Your task to perform on an android device: clear all cookies in the chrome app Image 0: 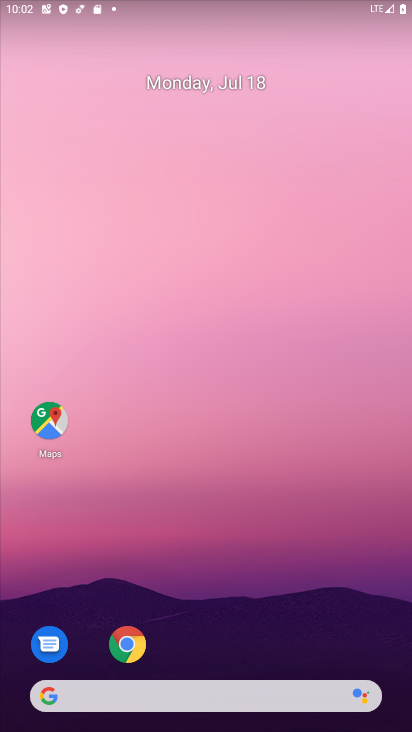
Step 0: drag from (331, 597) to (354, 95)
Your task to perform on an android device: clear all cookies in the chrome app Image 1: 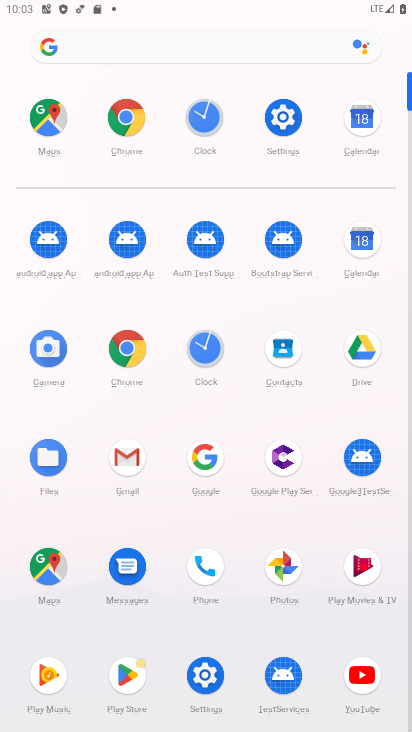
Step 1: click (128, 116)
Your task to perform on an android device: clear all cookies in the chrome app Image 2: 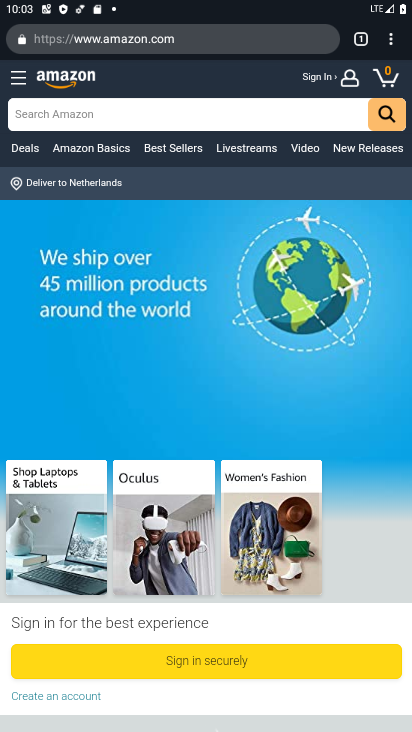
Step 2: click (392, 46)
Your task to perform on an android device: clear all cookies in the chrome app Image 3: 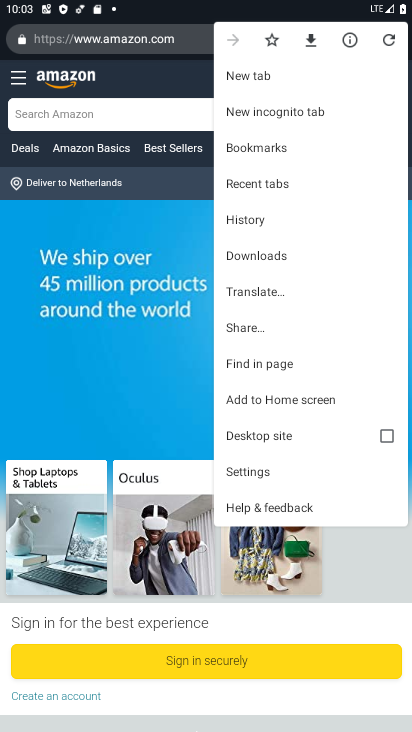
Step 3: click (272, 475)
Your task to perform on an android device: clear all cookies in the chrome app Image 4: 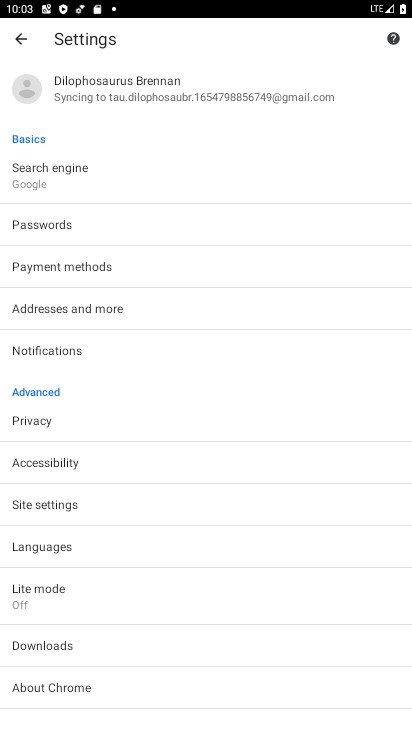
Step 4: drag from (231, 626) to (249, 531)
Your task to perform on an android device: clear all cookies in the chrome app Image 5: 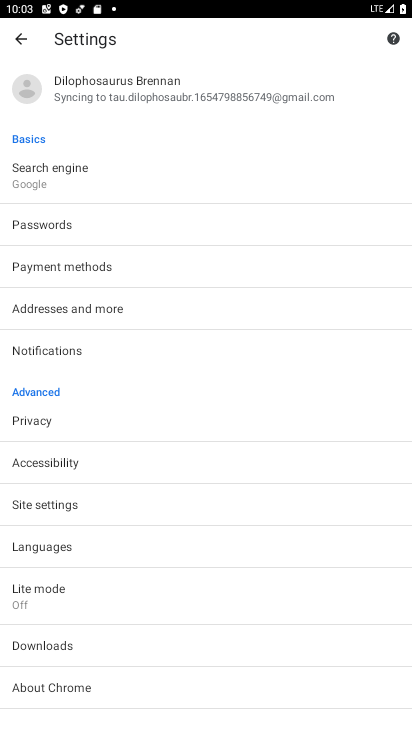
Step 5: click (179, 408)
Your task to perform on an android device: clear all cookies in the chrome app Image 6: 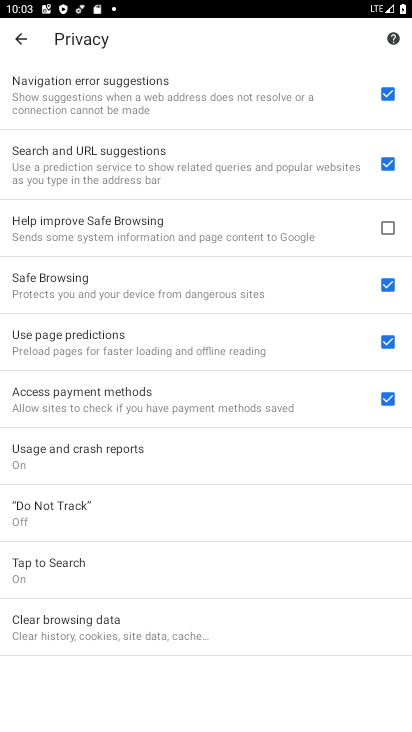
Step 6: click (243, 621)
Your task to perform on an android device: clear all cookies in the chrome app Image 7: 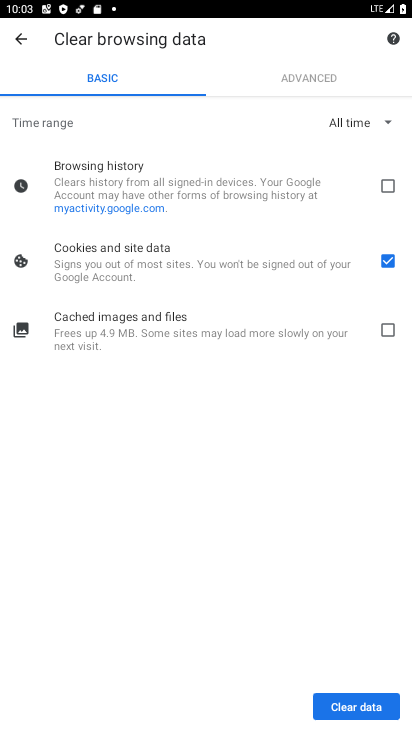
Step 7: click (381, 331)
Your task to perform on an android device: clear all cookies in the chrome app Image 8: 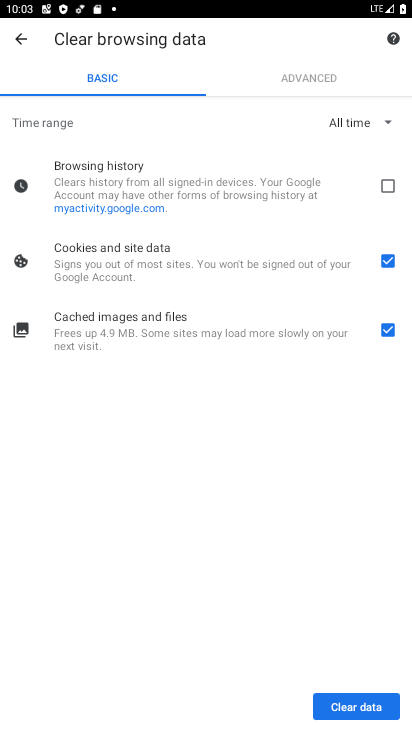
Step 8: click (386, 184)
Your task to perform on an android device: clear all cookies in the chrome app Image 9: 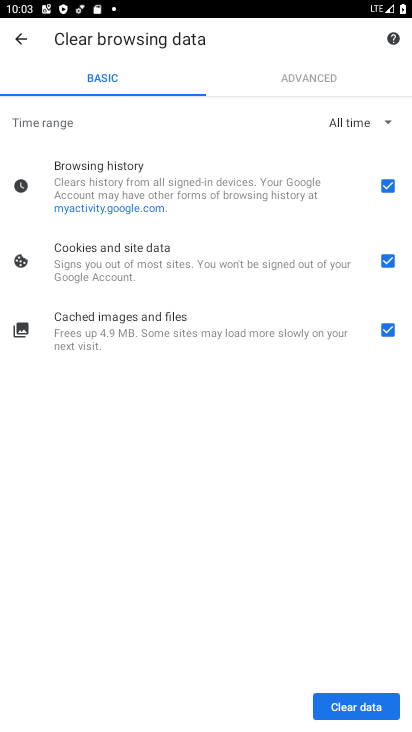
Step 9: click (366, 703)
Your task to perform on an android device: clear all cookies in the chrome app Image 10: 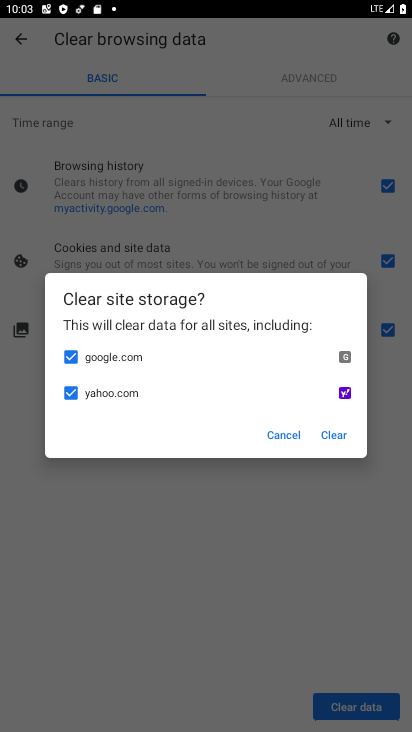
Step 10: click (331, 442)
Your task to perform on an android device: clear all cookies in the chrome app Image 11: 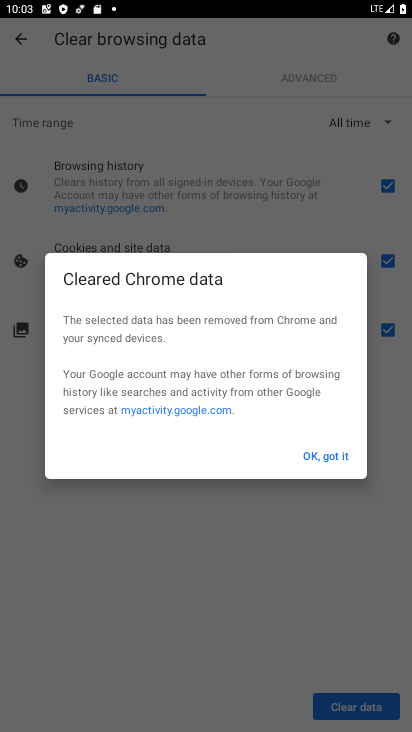
Step 11: click (329, 447)
Your task to perform on an android device: clear all cookies in the chrome app Image 12: 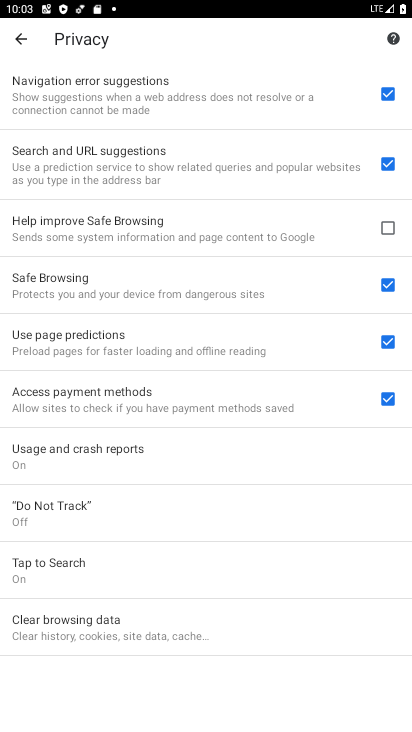
Step 12: task complete